Your task to perform on an android device: allow notifications from all sites in the chrome app Image 0: 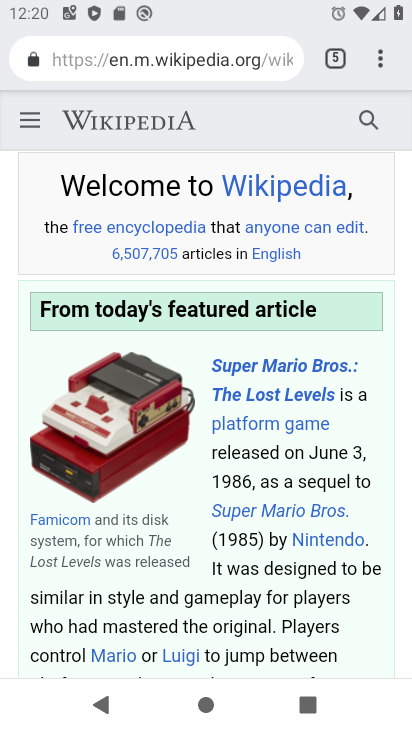
Step 0: press home button
Your task to perform on an android device: allow notifications from all sites in the chrome app Image 1: 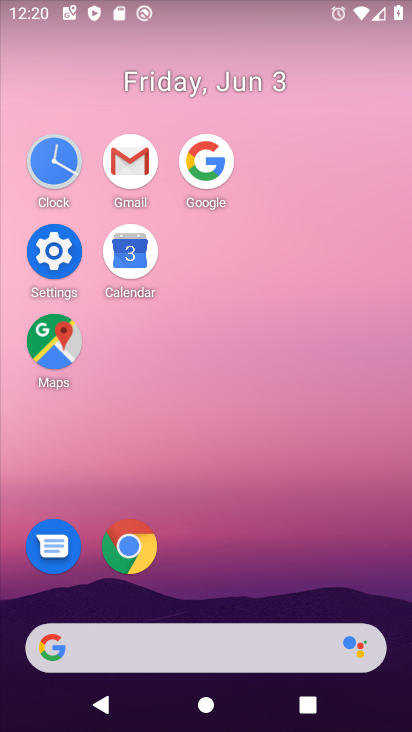
Step 1: click (131, 554)
Your task to perform on an android device: allow notifications from all sites in the chrome app Image 2: 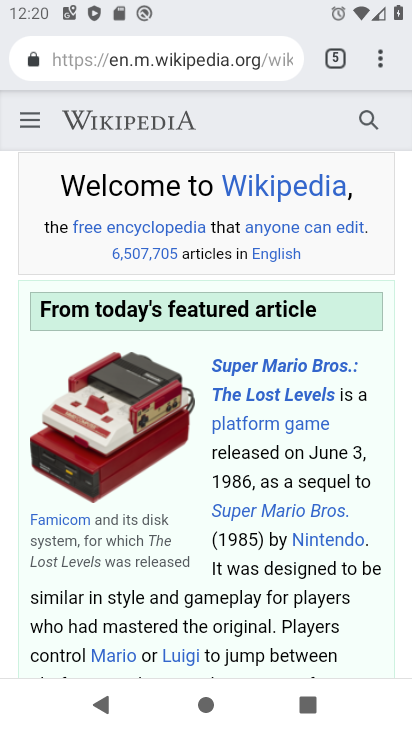
Step 2: click (375, 65)
Your task to perform on an android device: allow notifications from all sites in the chrome app Image 3: 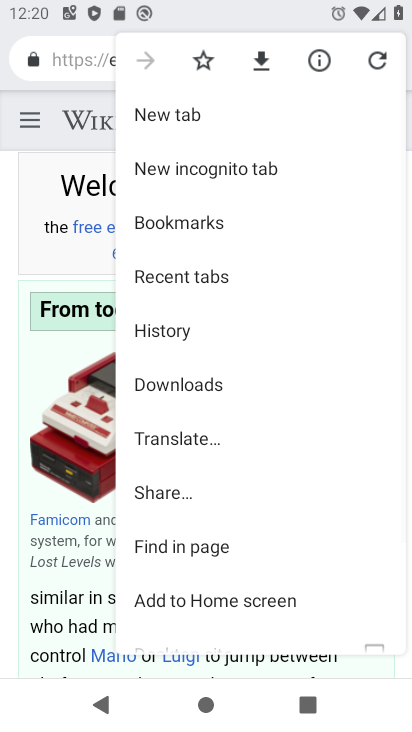
Step 3: drag from (288, 511) to (319, 167)
Your task to perform on an android device: allow notifications from all sites in the chrome app Image 4: 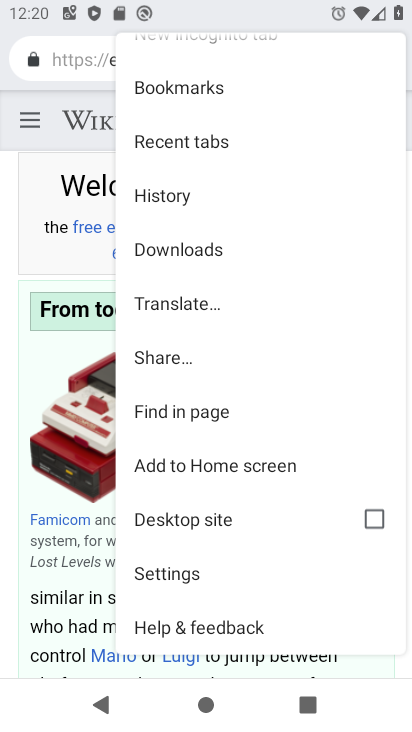
Step 4: click (247, 563)
Your task to perform on an android device: allow notifications from all sites in the chrome app Image 5: 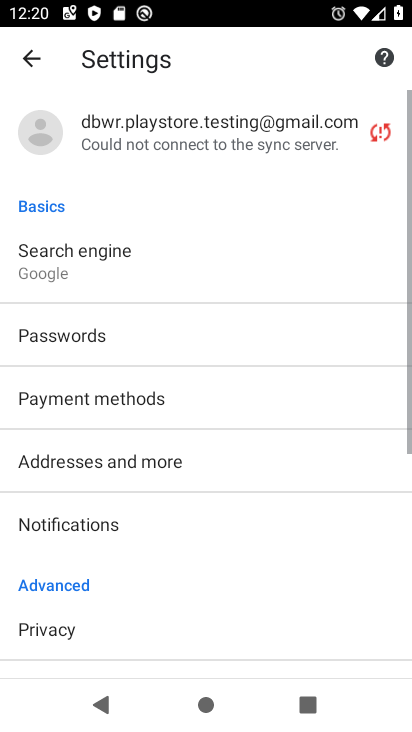
Step 5: drag from (247, 563) to (235, 189)
Your task to perform on an android device: allow notifications from all sites in the chrome app Image 6: 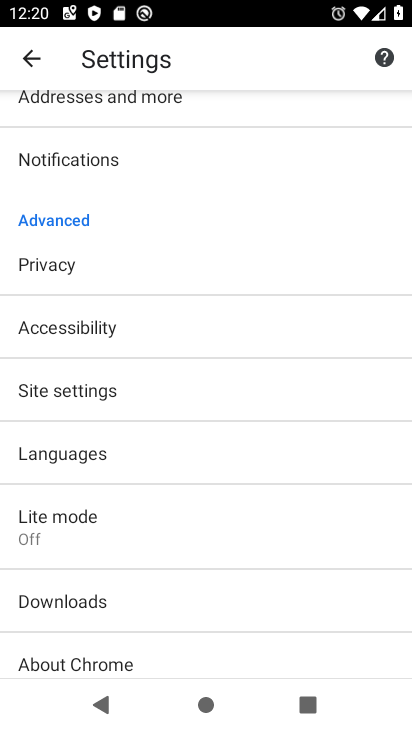
Step 6: click (219, 390)
Your task to perform on an android device: allow notifications from all sites in the chrome app Image 7: 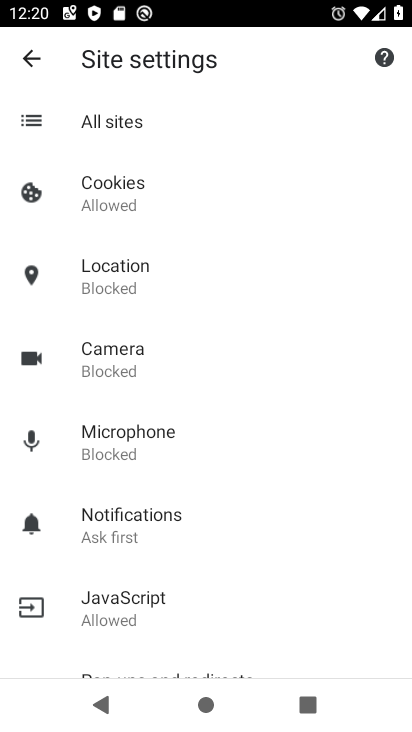
Step 7: click (168, 514)
Your task to perform on an android device: allow notifications from all sites in the chrome app Image 8: 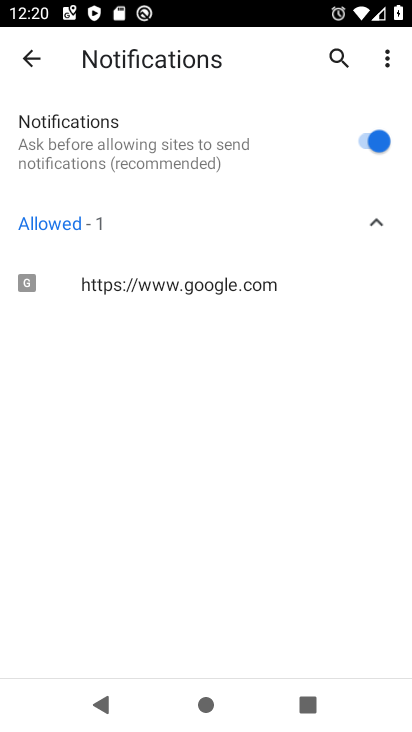
Step 8: task complete